Your task to perform on an android device: check battery use Image 0: 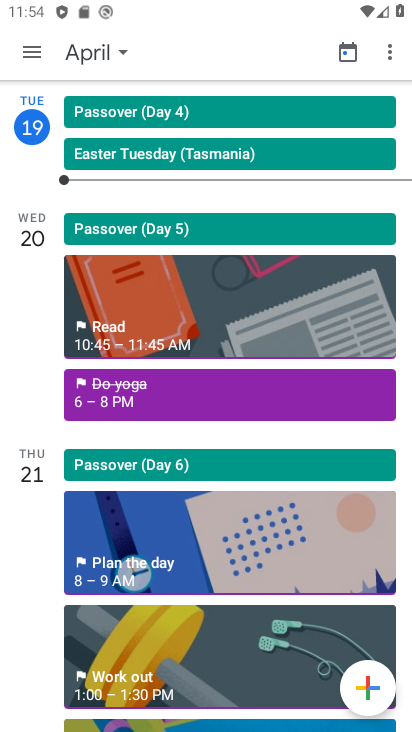
Step 0: press home button
Your task to perform on an android device: check battery use Image 1: 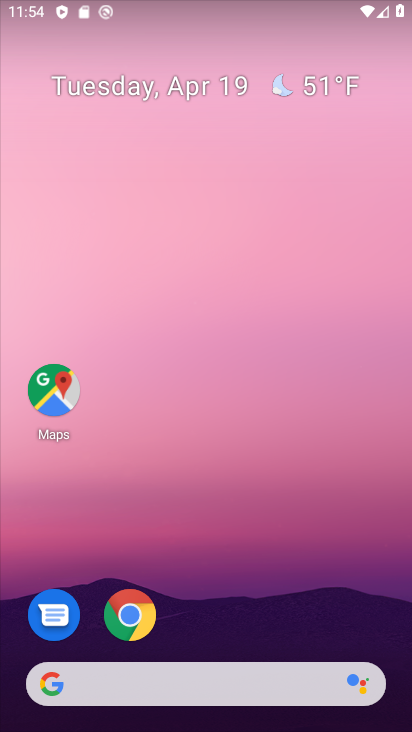
Step 1: drag from (343, 528) to (335, 30)
Your task to perform on an android device: check battery use Image 2: 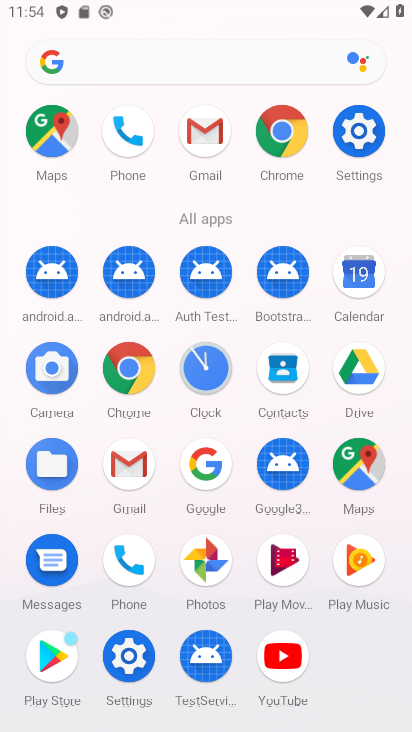
Step 2: click (351, 132)
Your task to perform on an android device: check battery use Image 3: 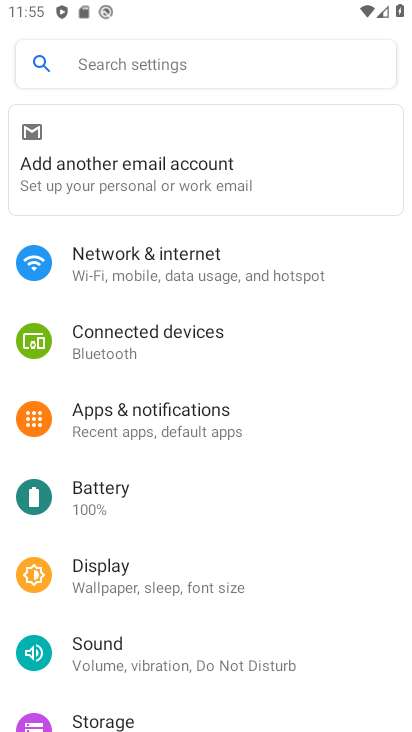
Step 3: click (111, 497)
Your task to perform on an android device: check battery use Image 4: 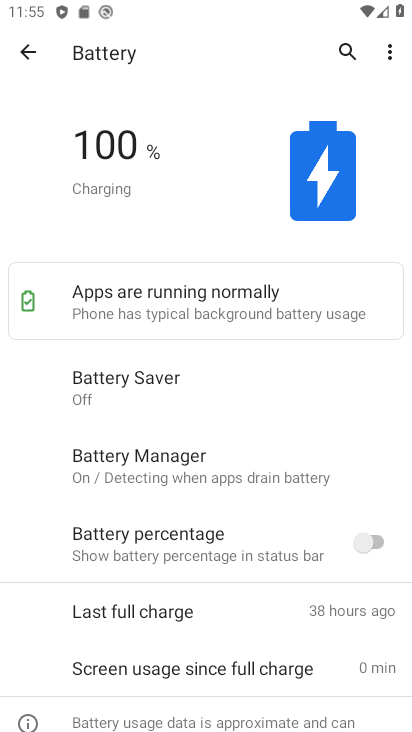
Step 4: click (386, 52)
Your task to perform on an android device: check battery use Image 5: 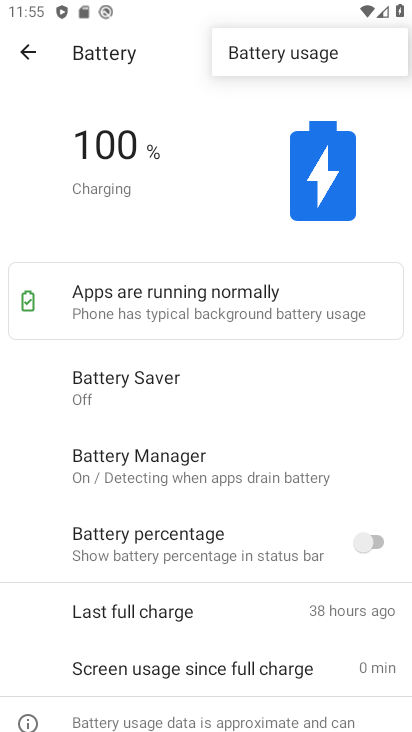
Step 5: click (289, 47)
Your task to perform on an android device: check battery use Image 6: 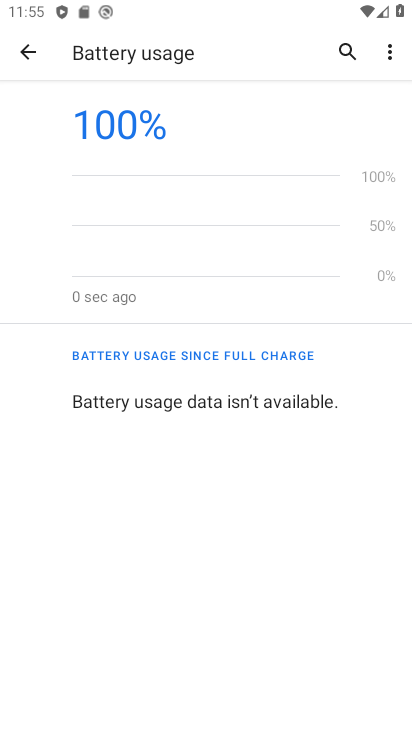
Step 6: task complete